Your task to perform on an android device: Open calendar and show me the fourth week of next month Image 0: 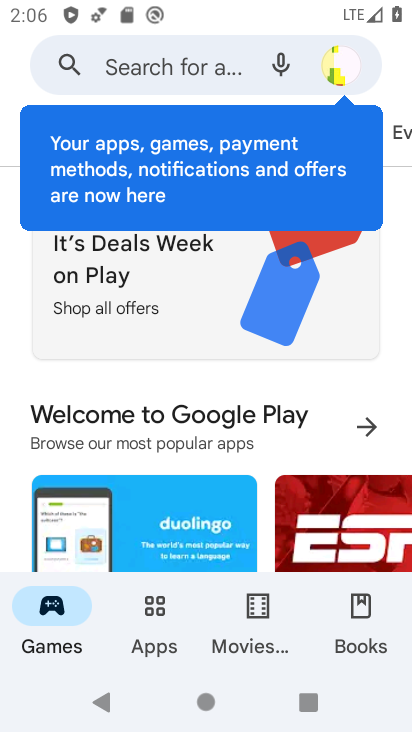
Step 0: press home button
Your task to perform on an android device: Open calendar and show me the fourth week of next month Image 1: 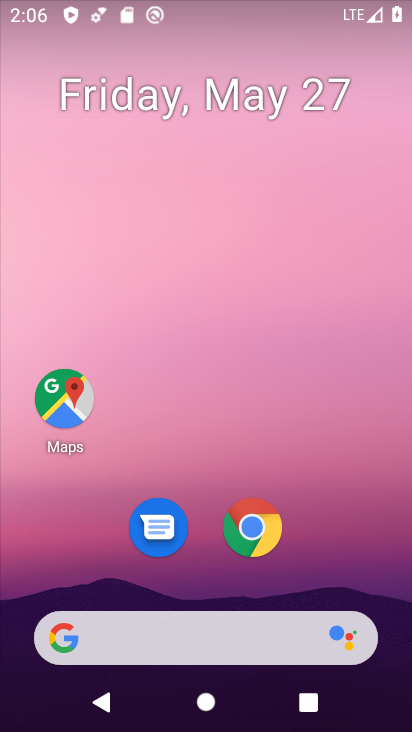
Step 1: drag from (250, 622) to (285, 43)
Your task to perform on an android device: Open calendar and show me the fourth week of next month Image 2: 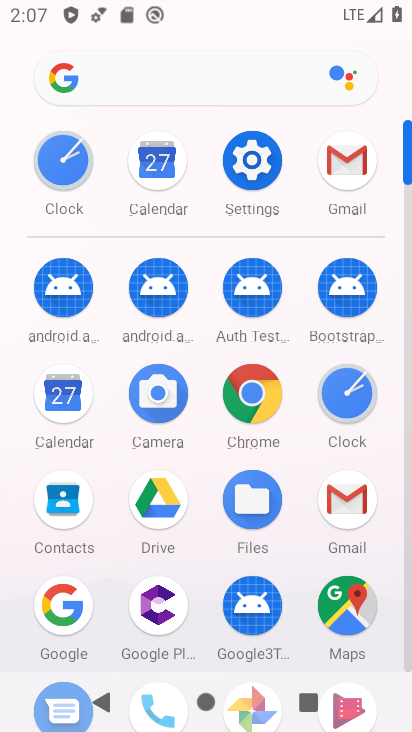
Step 2: click (164, 168)
Your task to perform on an android device: Open calendar and show me the fourth week of next month Image 3: 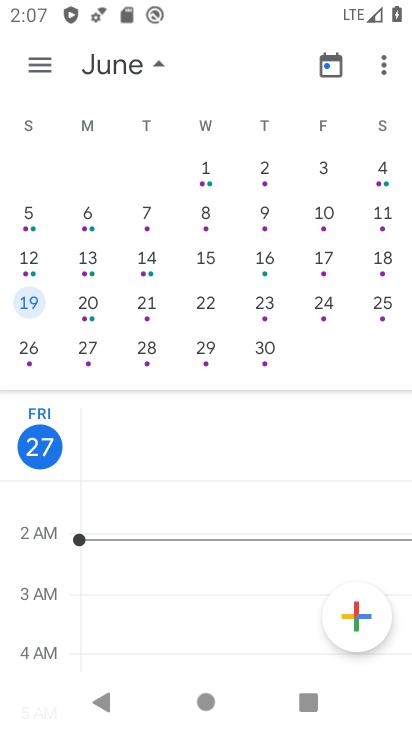
Step 3: task complete